Your task to perform on an android device: empty trash in google photos Image 0: 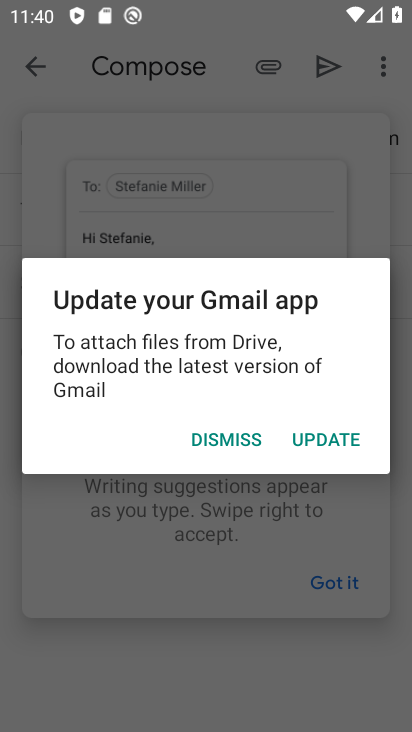
Step 0: press home button
Your task to perform on an android device: empty trash in google photos Image 1: 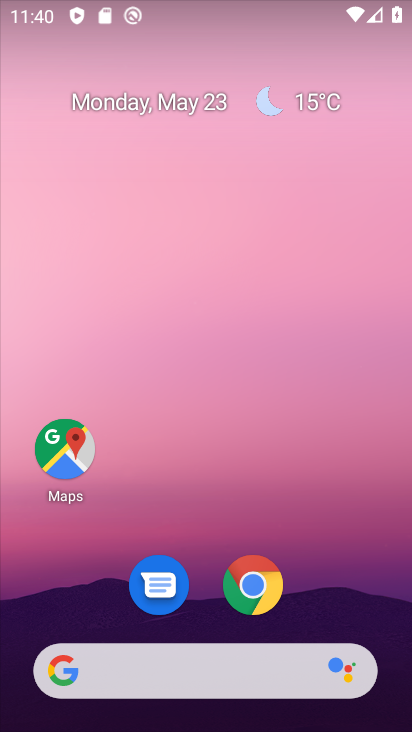
Step 1: drag from (200, 510) to (227, 25)
Your task to perform on an android device: empty trash in google photos Image 2: 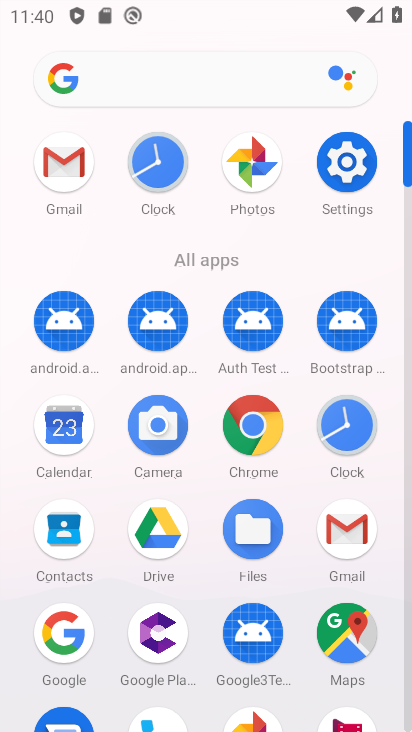
Step 2: click (238, 158)
Your task to perform on an android device: empty trash in google photos Image 3: 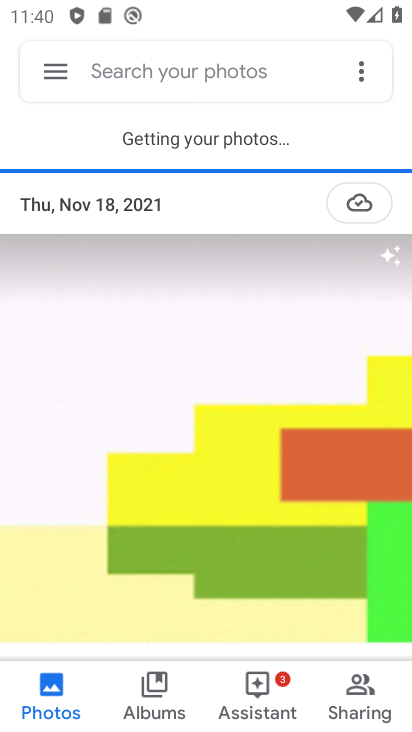
Step 3: click (47, 64)
Your task to perform on an android device: empty trash in google photos Image 4: 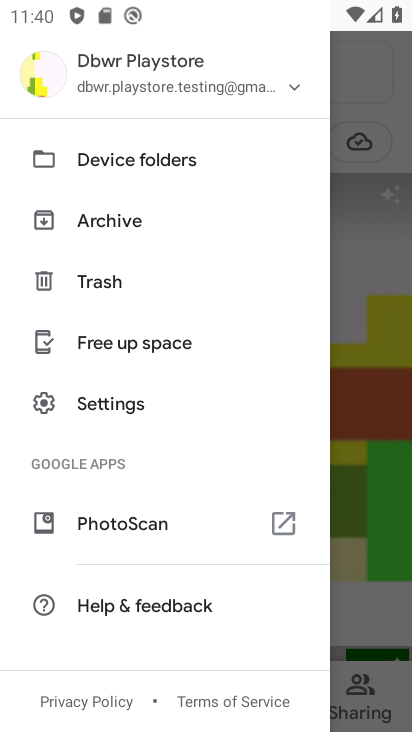
Step 4: click (107, 278)
Your task to perform on an android device: empty trash in google photos Image 5: 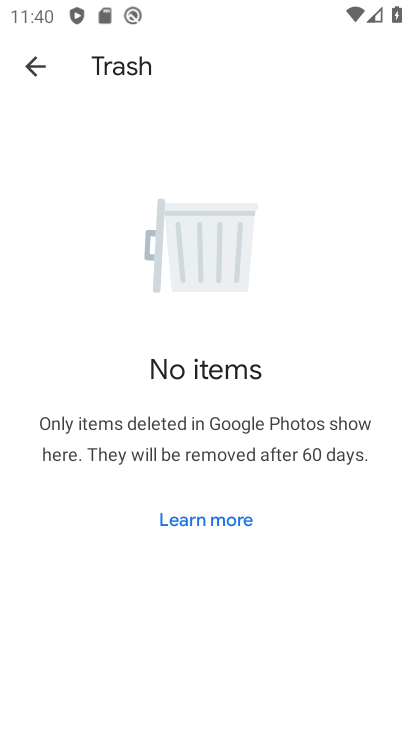
Step 5: task complete